Your task to perform on an android device: delete the emails in spam in the gmail app Image 0: 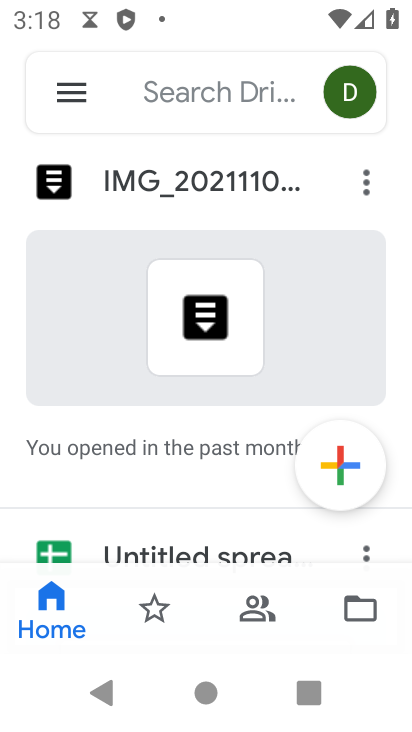
Step 0: press back button
Your task to perform on an android device: delete the emails in spam in the gmail app Image 1: 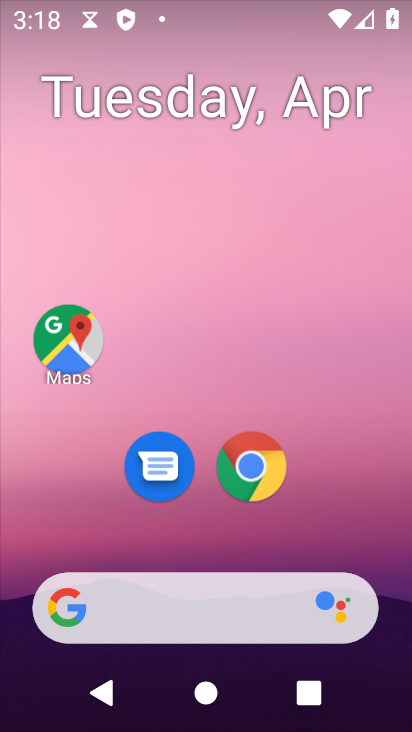
Step 1: drag from (328, 471) to (383, 665)
Your task to perform on an android device: delete the emails in spam in the gmail app Image 2: 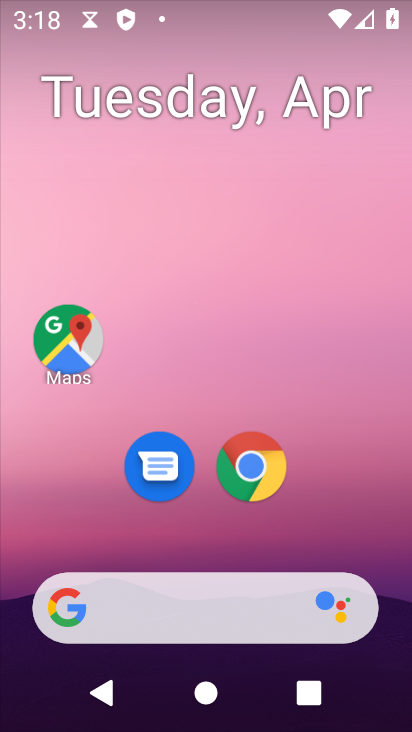
Step 2: drag from (400, 635) to (261, 70)
Your task to perform on an android device: delete the emails in spam in the gmail app Image 3: 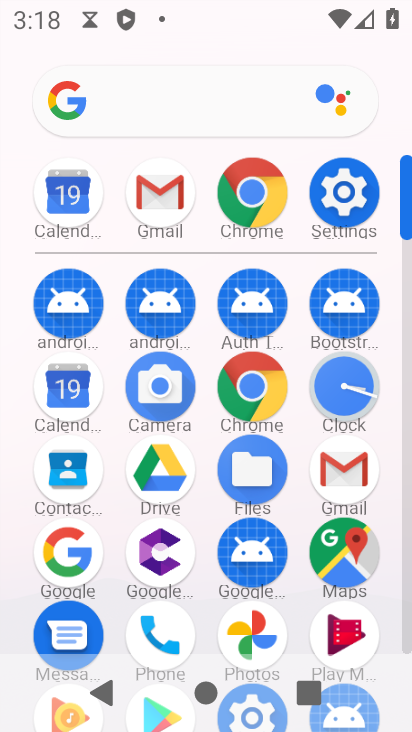
Step 3: drag from (9, 536) to (4, 225)
Your task to perform on an android device: delete the emails in spam in the gmail app Image 4: 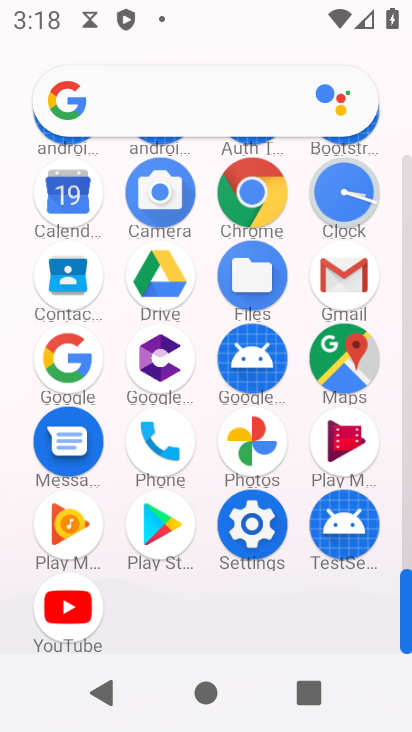
Step 4: click (348, 272)
Your task to perform on an android device: delete the emails in spam in the gmail app Image 5: 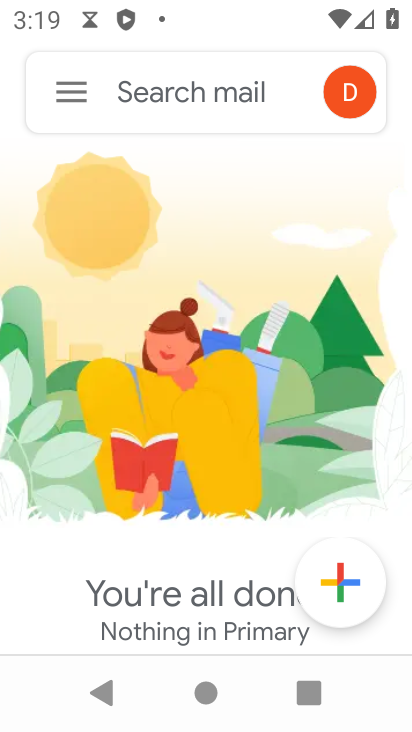
Step 5: click (65, 85)
Your task to perform on an android device: delete the emails in spam in the gmail app Image 6: 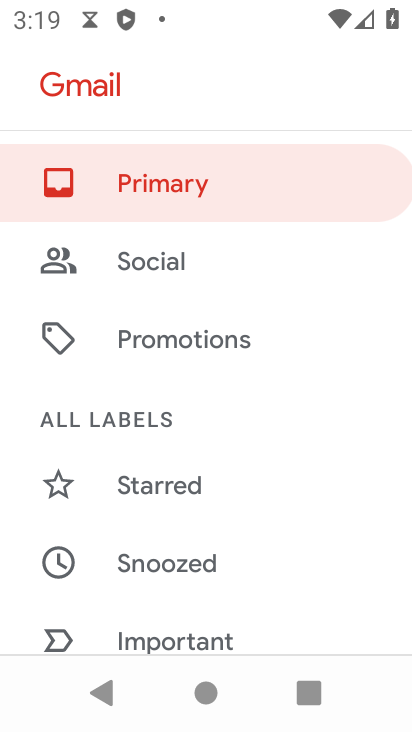
Step 6: drag from (229, 530) to (230, 196)
Your task to perform on an android device: delete the emails in spam in the gmail app Image 7: 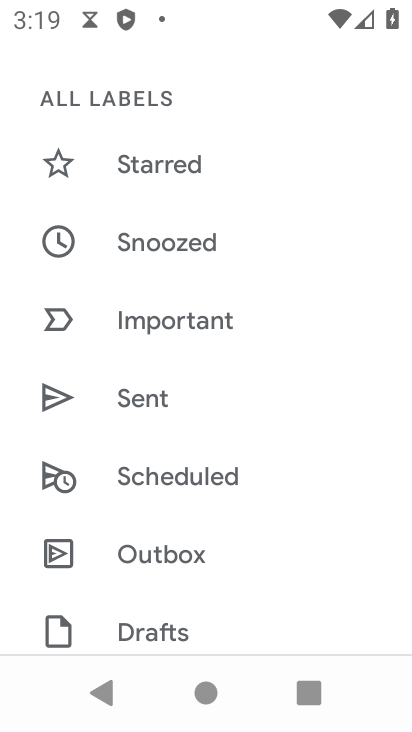
Step 7: drag from (267, 565) to (263, 166)
Your task to perform on an android device: delete the emails in spam in the gmail app Image 8: 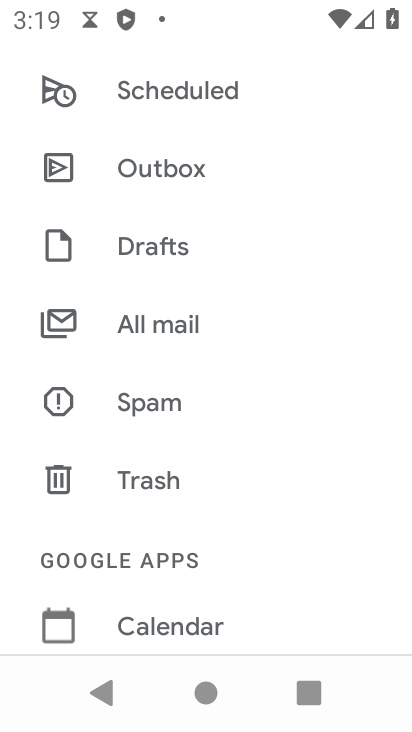
Step 8: click (168, 386)
Your task to perform on an android device: delete the emails in spam in the gmail app Image 9: 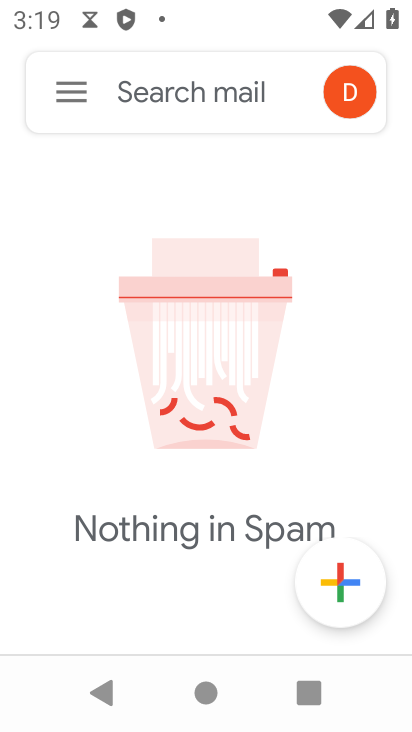
Step 9: task complete